Your task to perform on an android device: Search for Mexican restaurants on Maps Image 0: 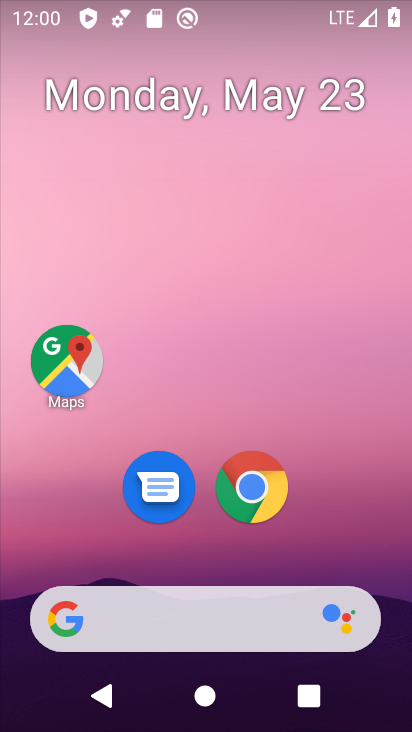
Step 0: drag from (233, 412) to (244, 1)
Your task to perform on an android device: Search for Mexican restaurants on Maps Image 1: 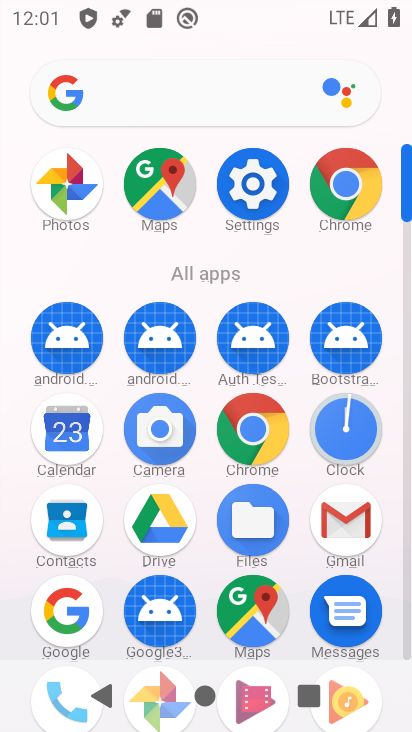
Step 1: drag from (209, 514) to (200, 225)
Your task to perform on an android device: Search for Mexican restaurants on Maps Image 2: 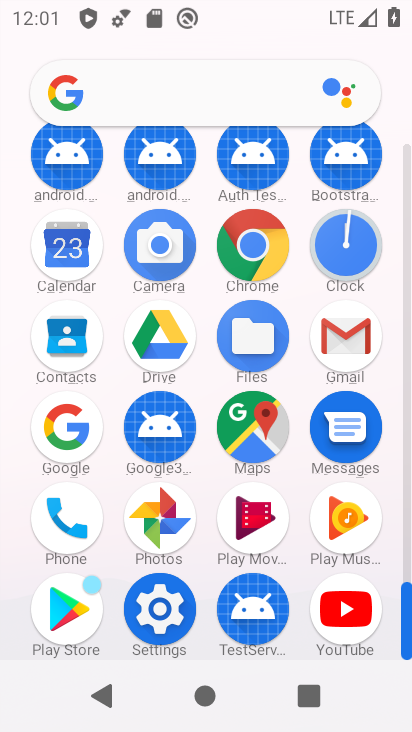
Step 2: click (242, 430)
Your task to perform on an android device: Search for Mexican restaurants on Maps Image 3: 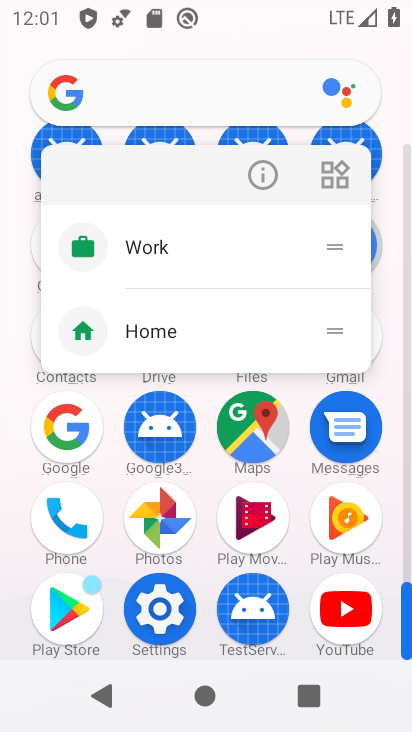
Step 3: click (244, 419)
Your task to perform on an android device: Search for Mexican restaurants on Maps Image 4: 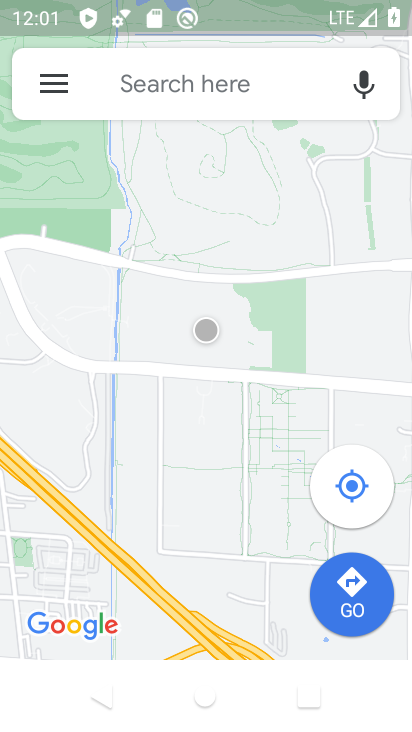
Step 4: click (59, 80)
Your task to perform on an android device: Search for Mexican restaurants on Maps Image 5: 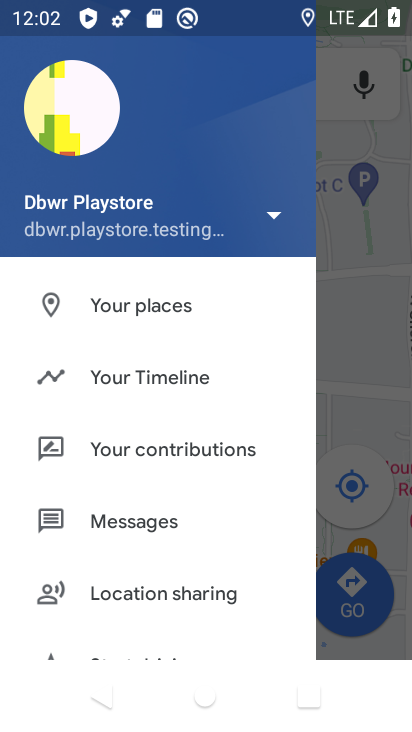
Step 5: click (369, 348)
Your task to perform on an android device: Search for Mexican restaurants on Maps Image 6: 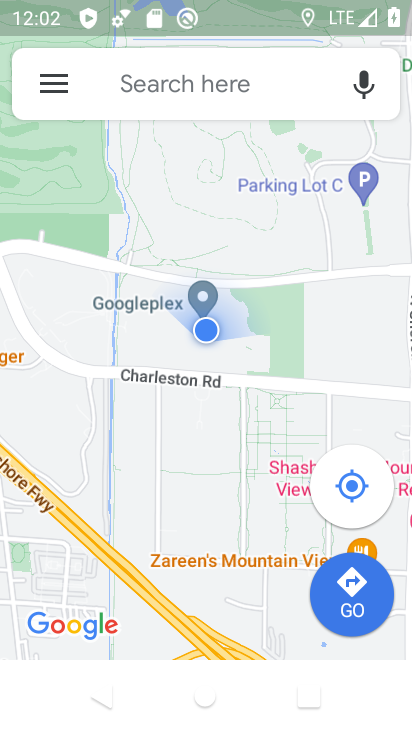
Step 6: click (215, 88)
Your task to perform on an android device: Search for Mexican restaurants on Maps Image 7: 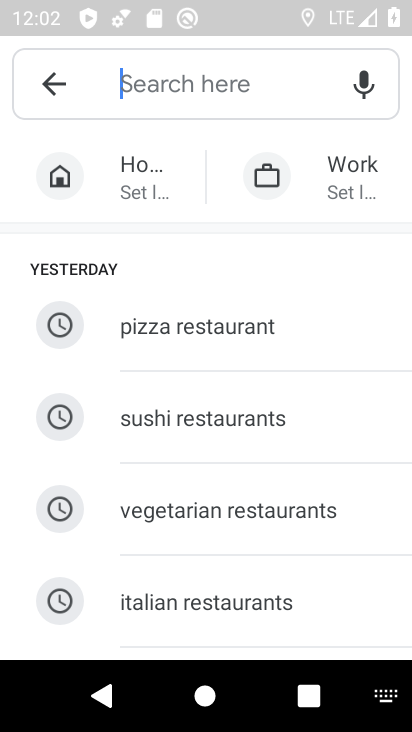
Step 7: drag from (220, 532) to (271, 581)
Your task to perform on an android device: Search for Mexican restaurants on Maps Image 8: 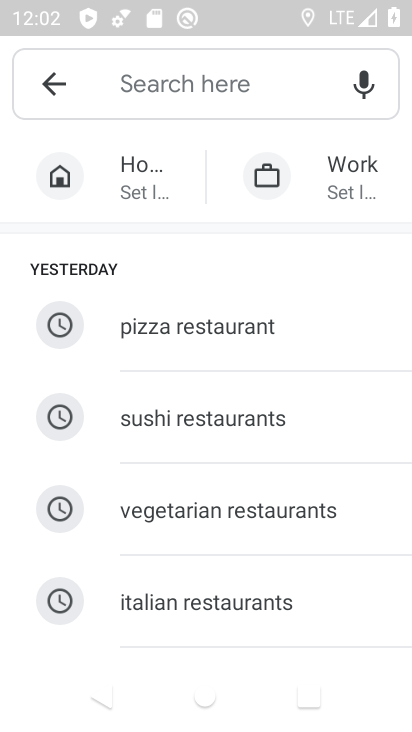
Step 8: click (189, 74)
Your task to perform on an android device: Search for Mexican restaurants on Maps Image 9: 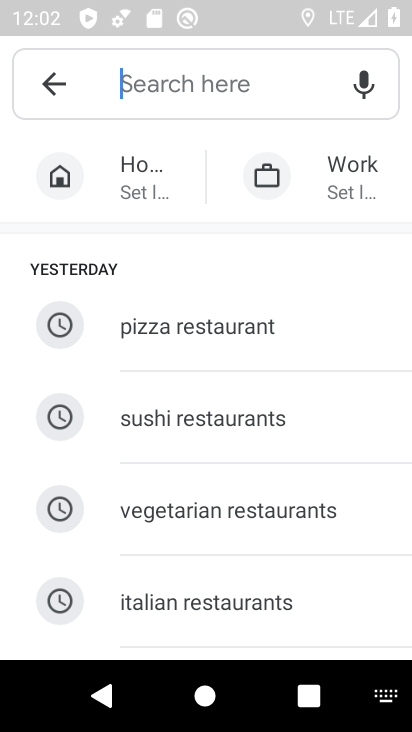
Step 9: type "Mexican restaurants"
Your task to perform on an android device: Search for Mexican restaurants on Maps Image 10: 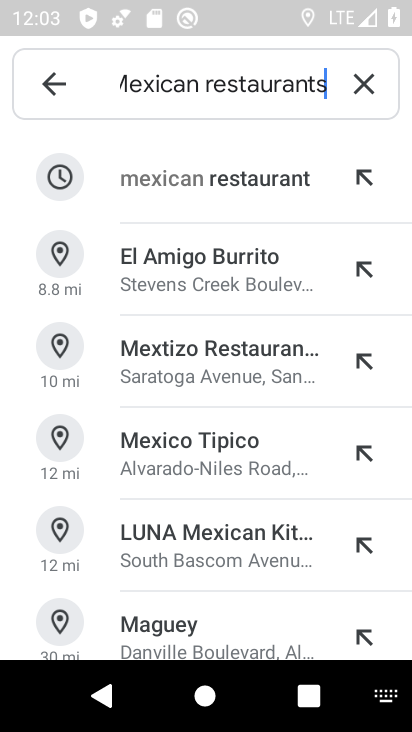
Step 10: click (260, 177)
Your task to perform on an android device: Search for Mexican restaurants on Maps Image 11: 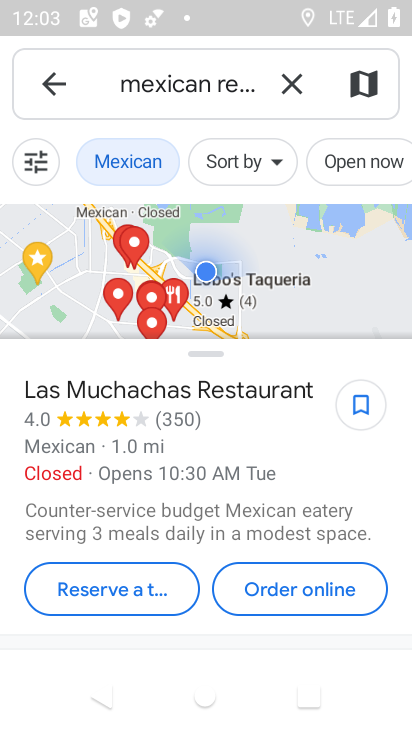
Step 11: task complete